Your task to perform on an android device: open wifi settings Image 0: 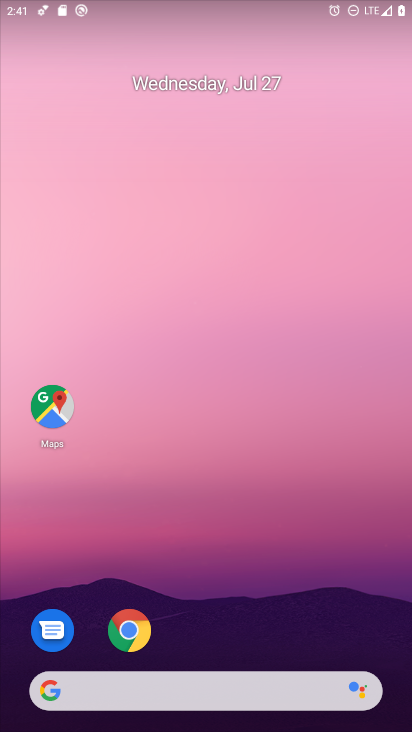
Step 0: drag from (386, 649) to (353, 180)
Your task to perform on an android device: open wifi settings Image 1: 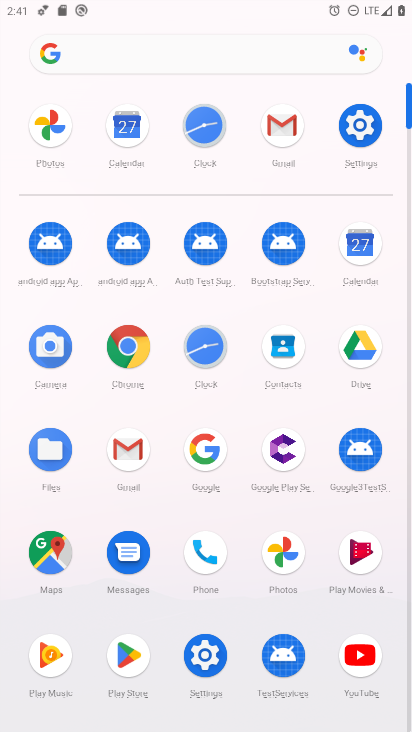
Step 1: click (204, 655)
Your task to perform on an android device: open wifi settings Image 2: 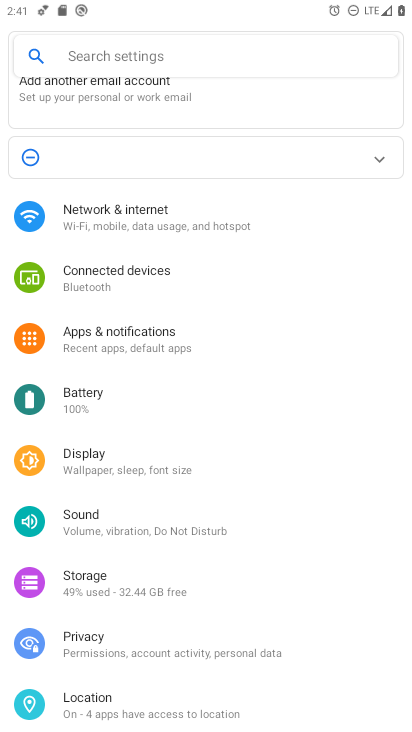
Step 2: click (97, 214)
Your task to perform on an android device: open wifi settings Image 3: 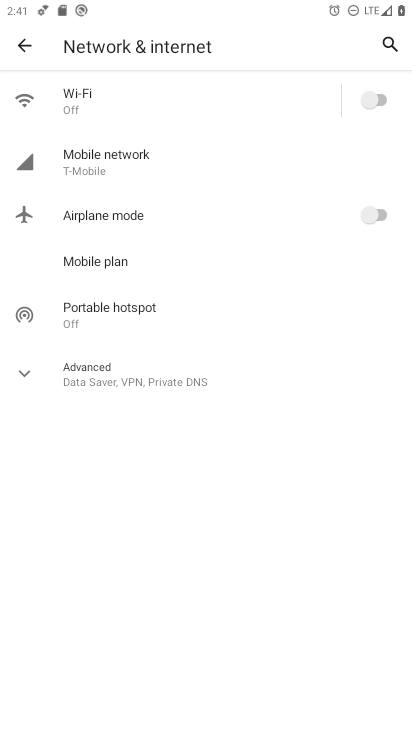
Step 3: click (64, 90)
Your task to perform on an android device: open wifi settings Image 4: 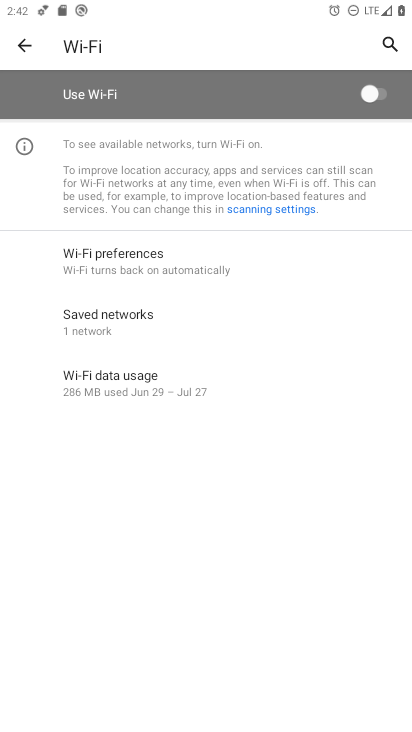
Step 4: task complete